Your task to perform on an android device: Open the phone app and click the voicemail tab. Image 0: 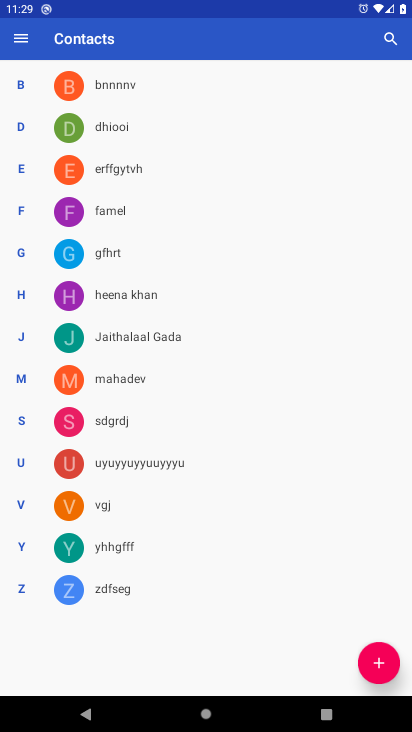
Step 0: press home button
Your task to perform on an android device: Open the phone app and click the voicemail tab. Image 1: 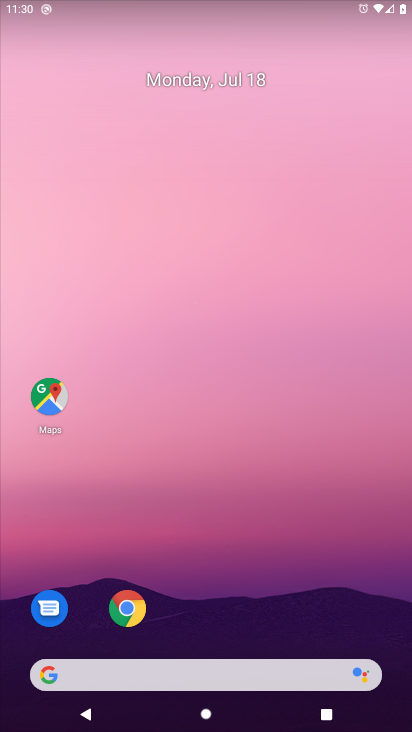
Step 1: drag from (25, 710) to (190, 54)
Your task to perform on an android device: Open the phone app and click the voicemail tab. Image 2: 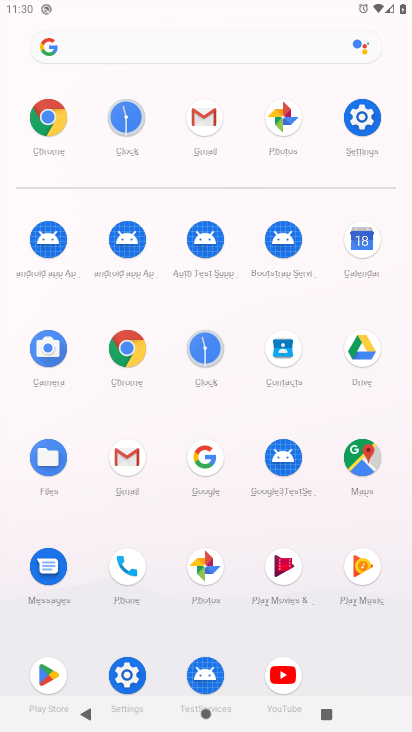
Step 2: click (129, 575)
Your task to perform on an android device: Open the phone app and click the voicemail tab. Image 3: 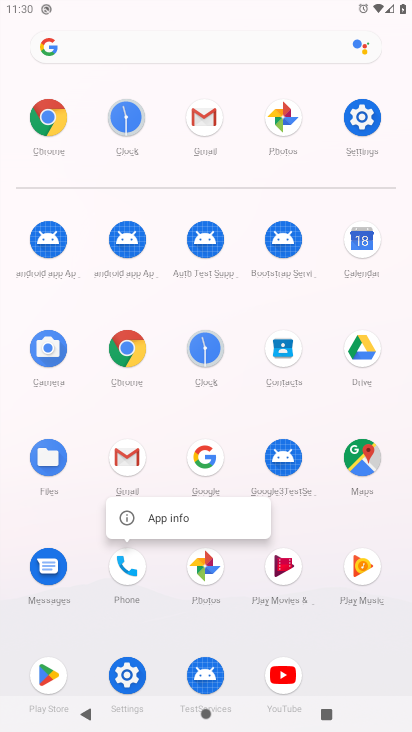
Step 3: click (119, 572)
Your task to perform on an android device: Open the phone app and click the voicemail tab. Image 4: 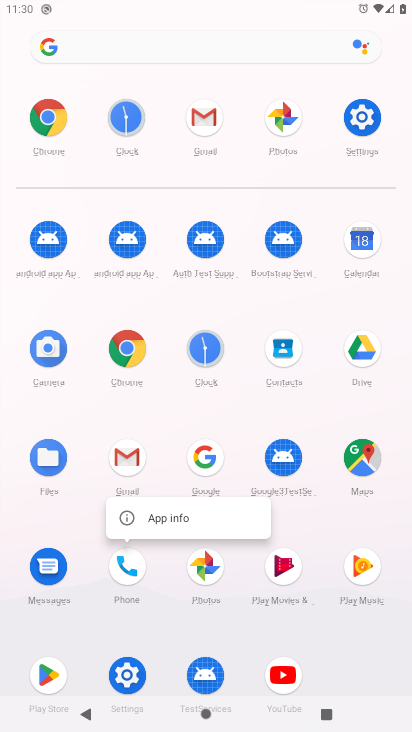
Step 4: click (119, 572)
Your task to perform on an android device: Open the phone app and click the voicemail tab. Image 5: 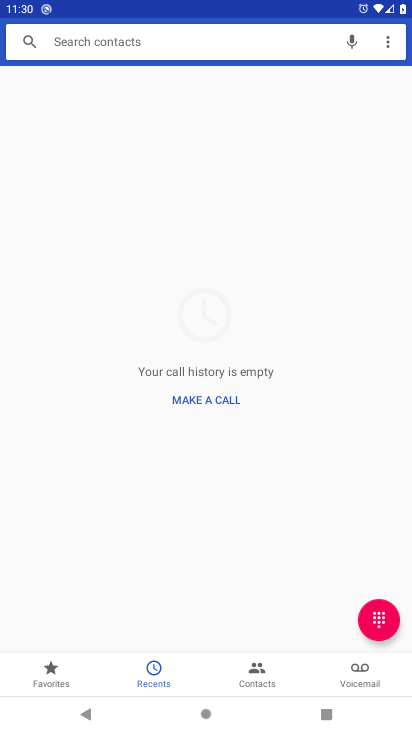
Step 5: click (349, 671)
Your task to perform on an android device: Open the phone app and click the voicemail tab. Image 6: 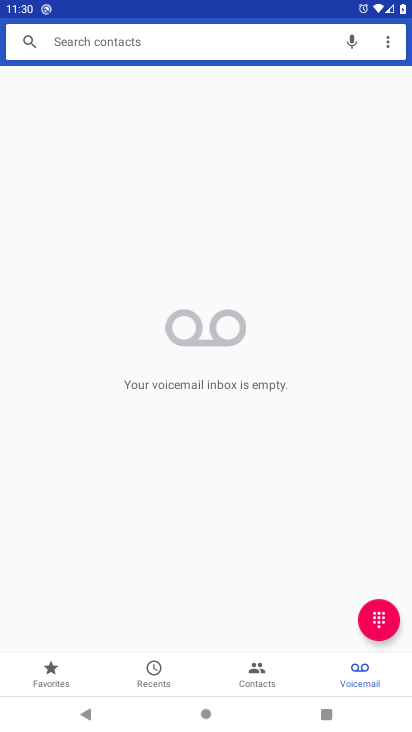
Step 6: task complete